Your task to perform on an android device: Go to settings Image 0: 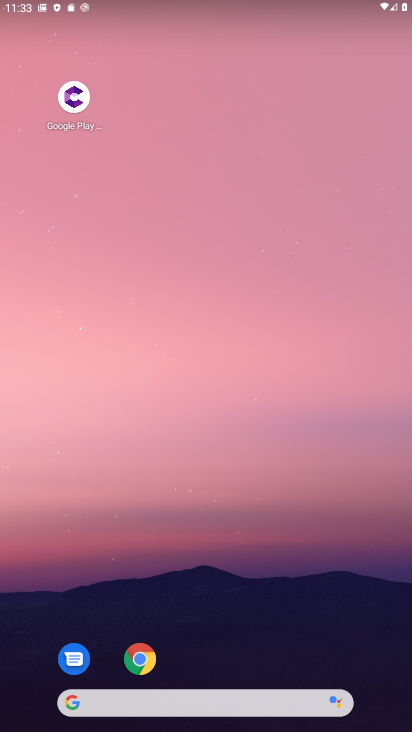
Step 0: drag from (332, 586) to (326, 27)
Your task to perform on an android device: Go to settings Image 1: 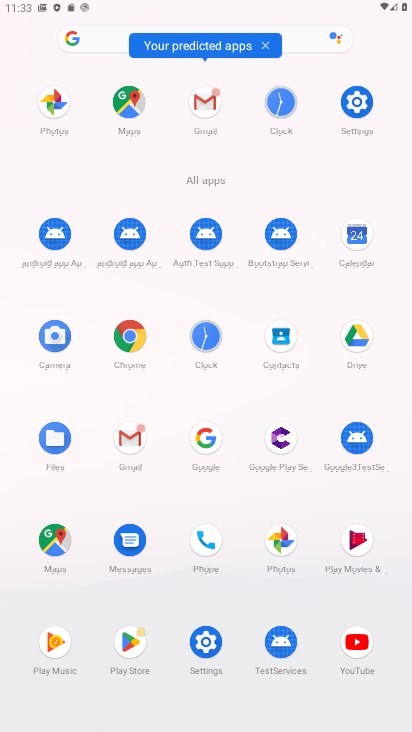
Step 1: click (200, 646)
Your task to perform on an android device: Go to settings Image 2: 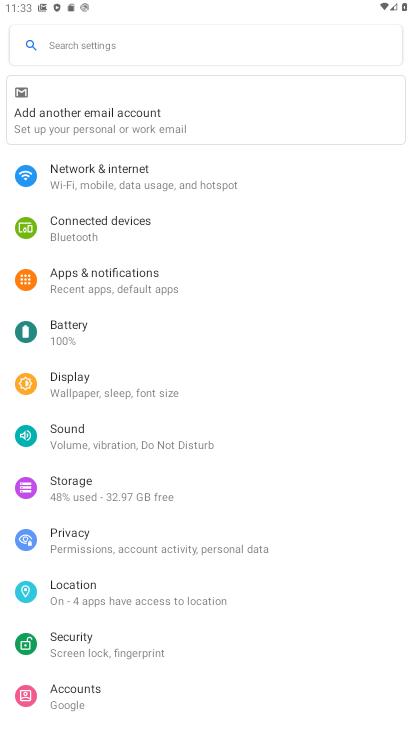
Step 2: press home button
Your task to perform on an android device: Go to settings Image 3: 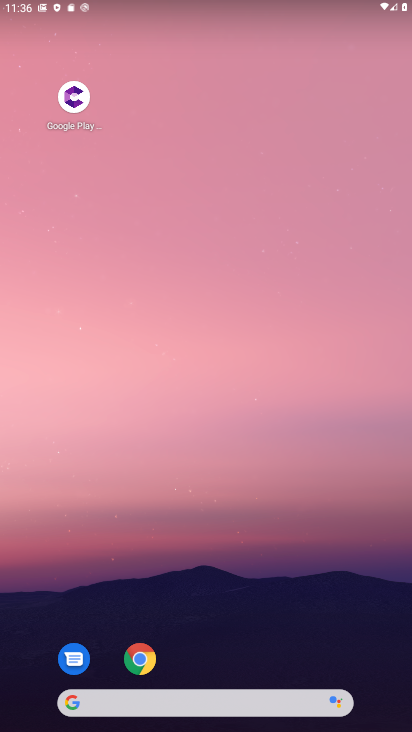
Step 3: press home button
Your task to perform on an android device: Go to settings Image 4: 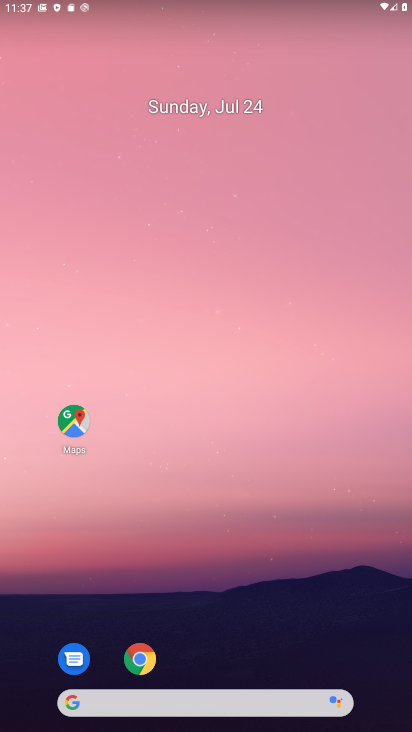
Step 4: drag from (222, 632) to (167, 348)
Your task to perform on an android device: Go to settings Image 5: 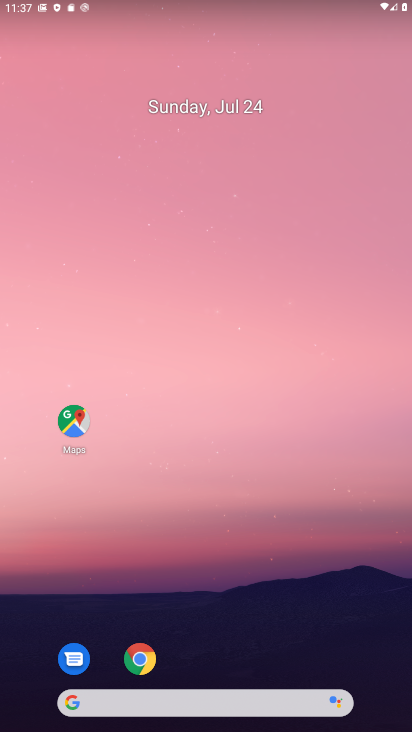
Step 5: drag from (275, 602) to (275, 305)
Your task to perform on an android device: Go to settings Image 6: 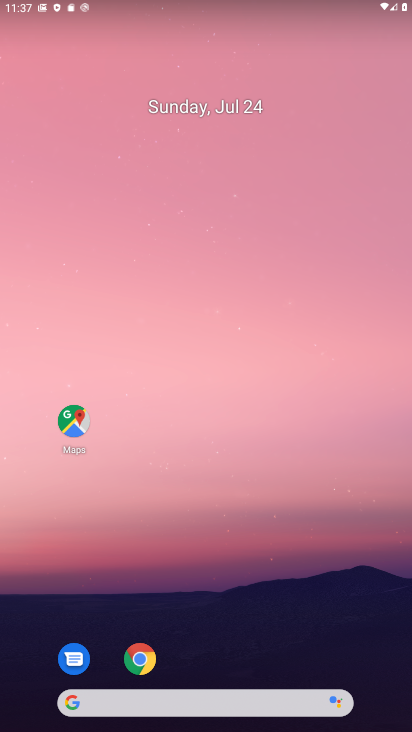
Step 6: drag from (328, 580) to (357, 305)
Your task to perform on an android device: Go to settings Image 7: 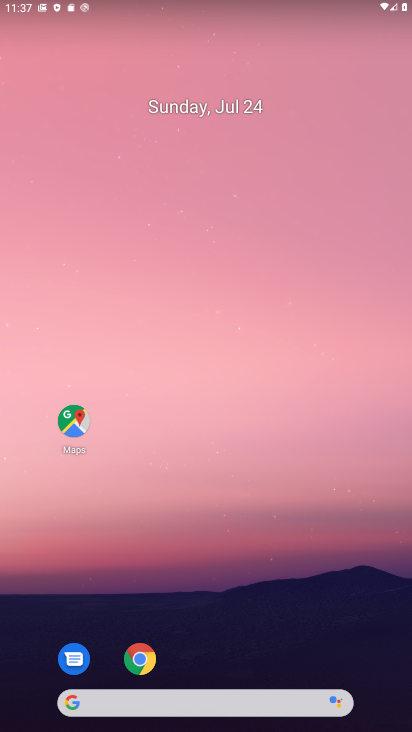
Step 7: drag from (228, 650) to (248, 301)
Your task to perform on an android device: Go to settings Image 8: 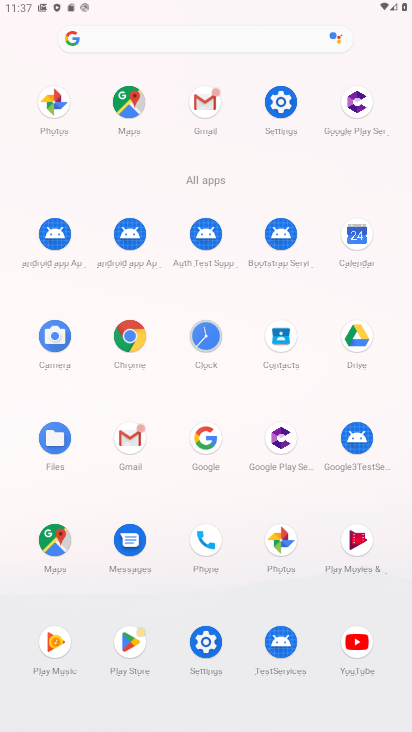
Step 8: click (276, 92)
Your task to perform on an android device: Go to settings Image 9: 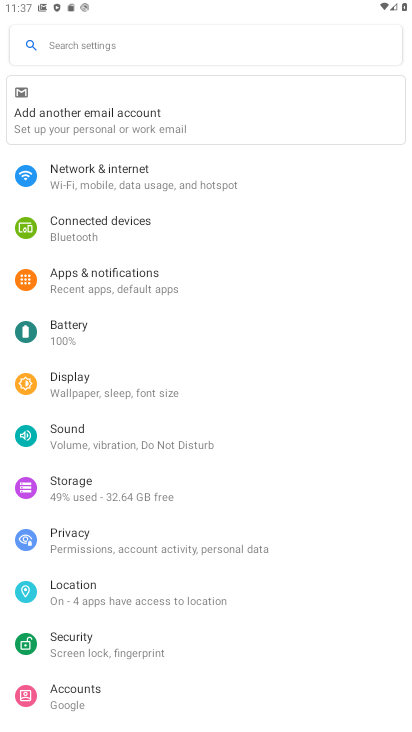
Step 9: task complete